Your task to perform on an android device: What is the recent news? Image 0: 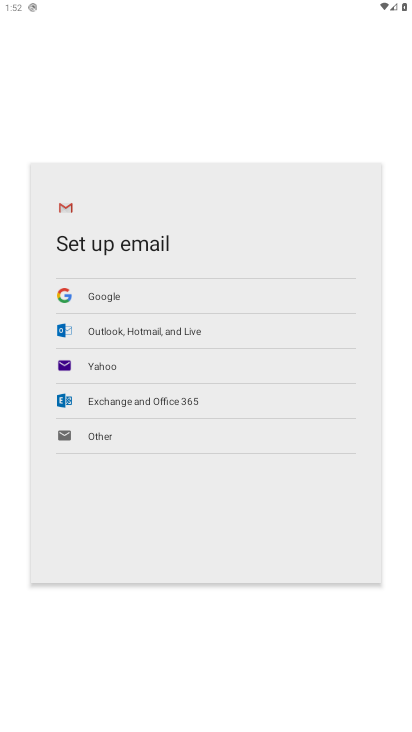
Step 0: press home button
Your task to perform on an android device: What is the recent news? Image 1: 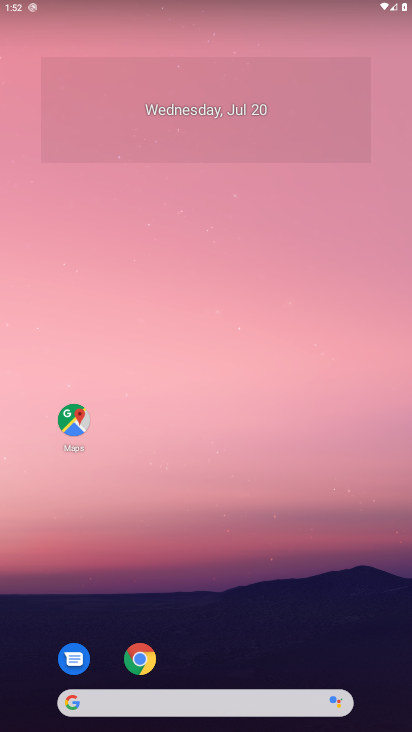
Step 1: click (125, 705)
Your task to perform on an android device: What is the recent news? Image 2: 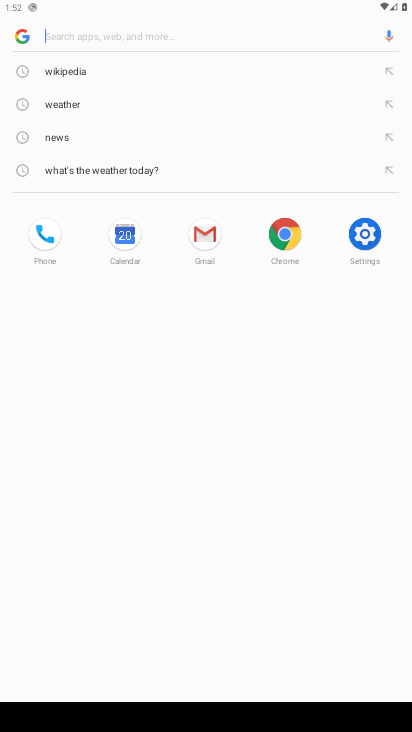
Step 2: type "What is the recent news?"
Your task to perform on an android device: What is the recent news? Image 3: 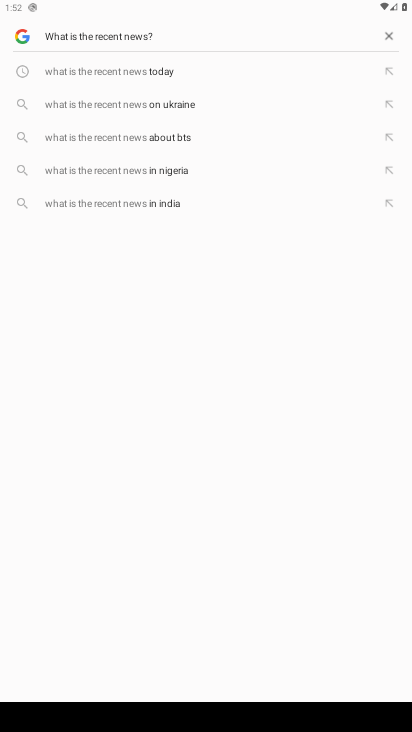
Step 3: type ""
Your task to perform on an android device: What is the recent news? Image 4: 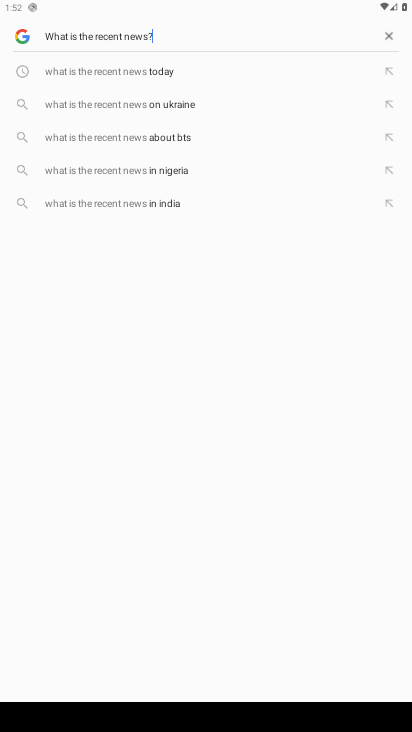
Step 4: type ""
Your task to perform on an android device: What is the recent news? Image 5: 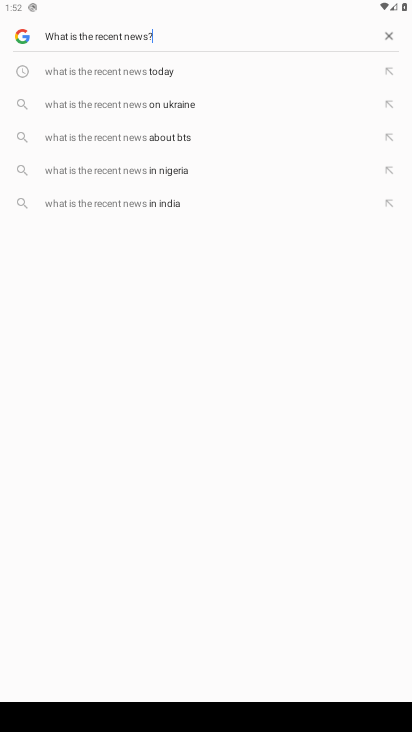
Step 5: task complete